Your task to perform on an android device: read, delete, or share a saved page in the chrome app Image 0: 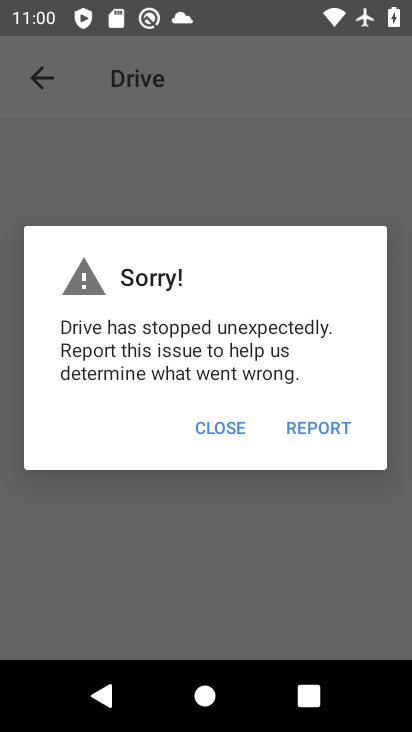
Step 0: press back button
Your task to perform on an android device: read, delete, or share a saved page in the chrome app Image 1: 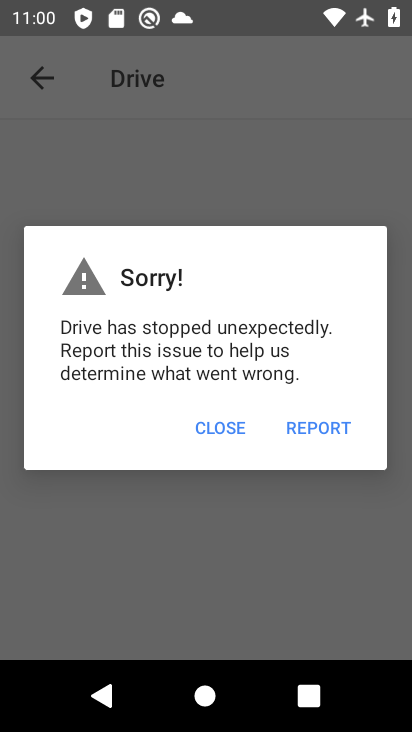
Step 1: press home button
Your task to perform on an android device: read, delete, or share a saved page in the chrome app Image 2: 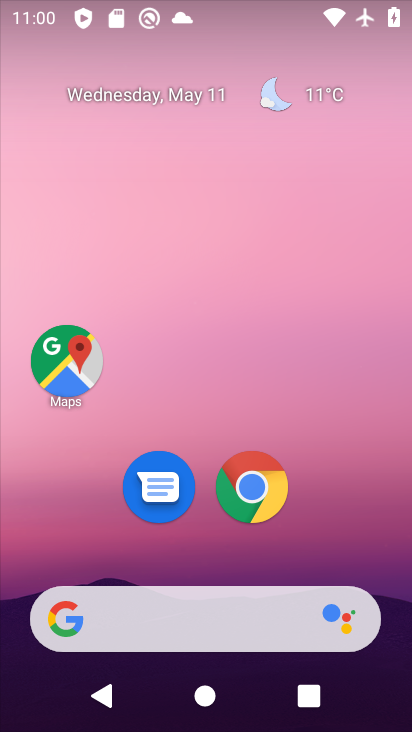
Step 2: click (249, 488)
Your task to perform on an android device: read, delete, or share a saved page in the chrome app Image 3: 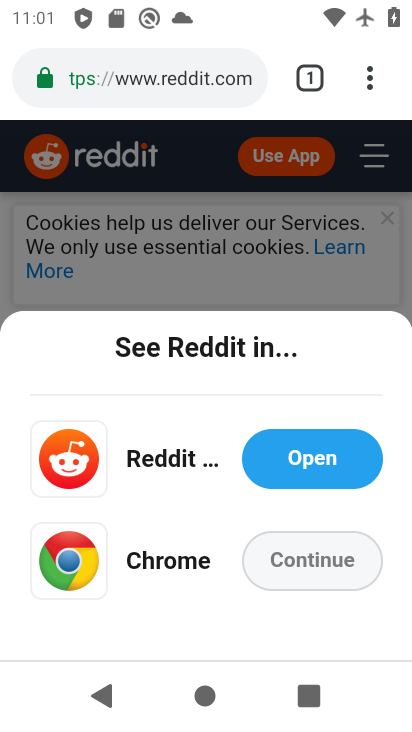
Step 3: task complete